Your task to perform on an android device: Show me recent news Image 0: 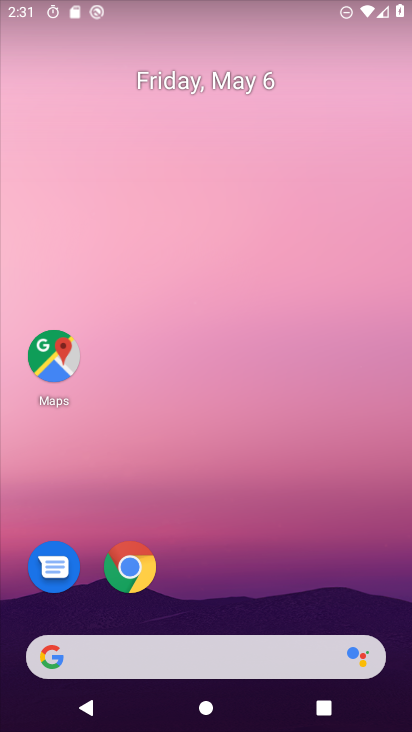
Step 0: drag from (267, 593) to (263, 307)
Your task to perform on an android device: Show me recent news Image 1: 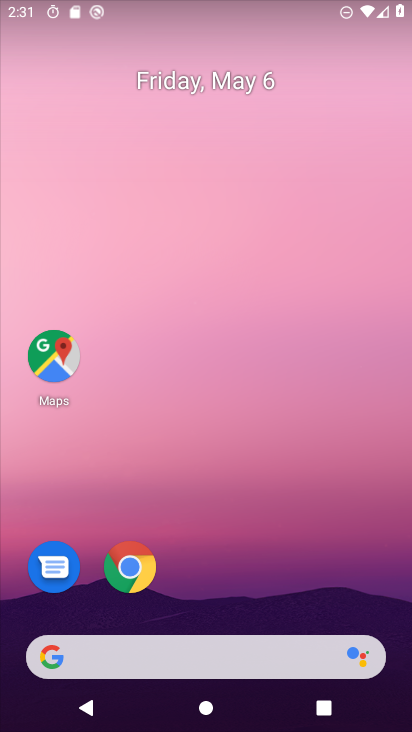
Step 1: drag from (245, 677) to (246, 253)
Your task to perform on an android device: Show me recent news Image 2: 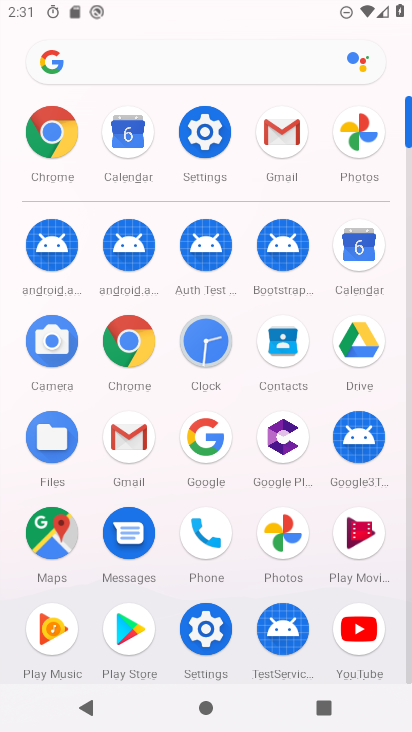
Step 2: click (125, 57)
Your task to perform on an android device: Show me recent news Image 3: 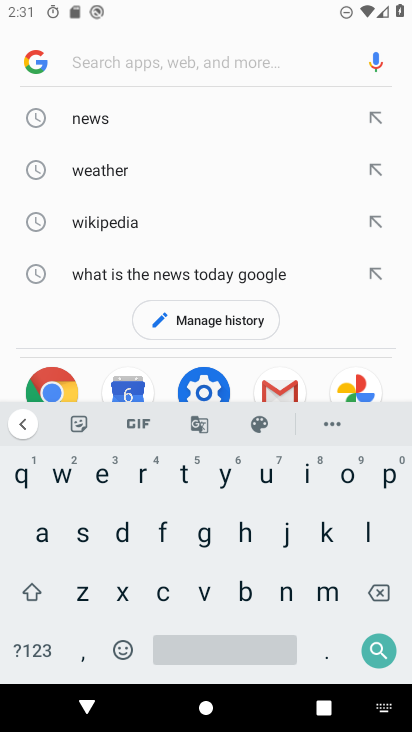
Step 3: click (138, 479)
Your task to perform on an android device: Show me recent news Image 4: 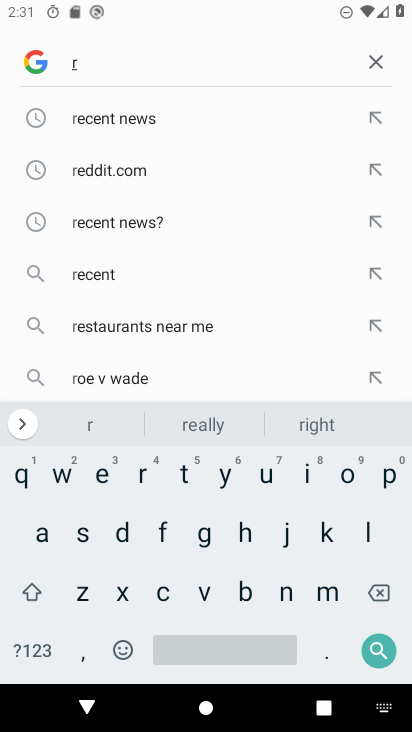
Step 4: click (144, 116)
Your task to perform on an android device: Show me recent news Image 5: 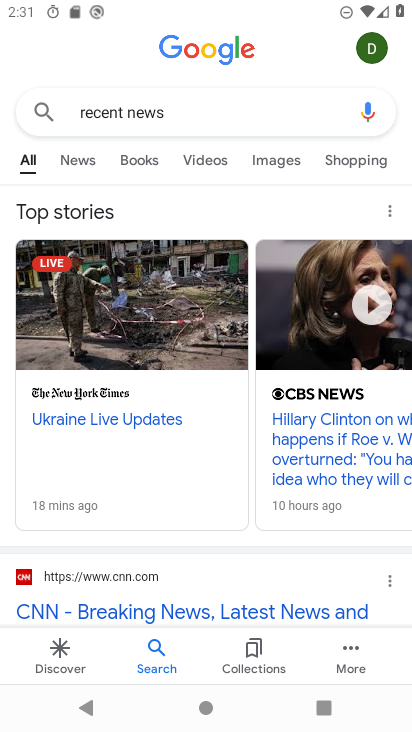
Step 5: task complete